Your task to perform on an android device: toggle wifi Image 0: 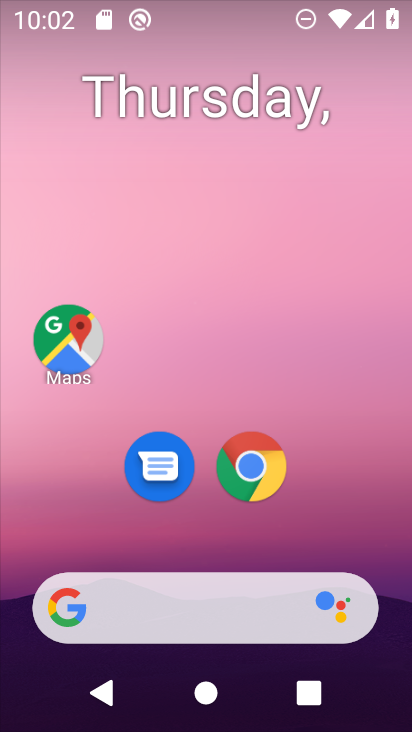
Step 0: drag from (320, 604) to (253, 81)
Your task to perform on an android device: toggle wifi Image 1: 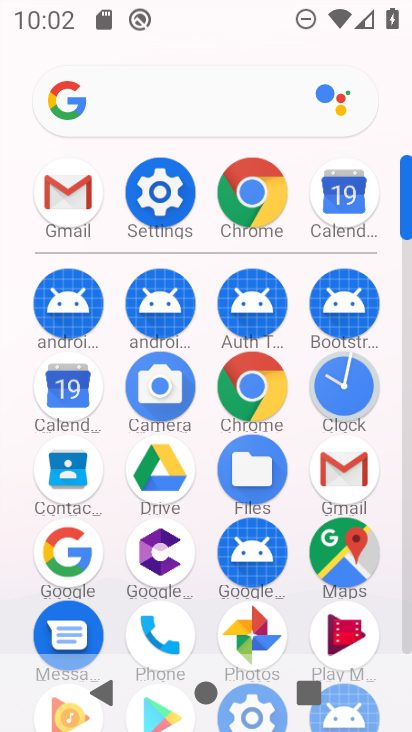
Step 1: click (150, 192)
Your task to perform on an android device: toggle wifi Image 2: 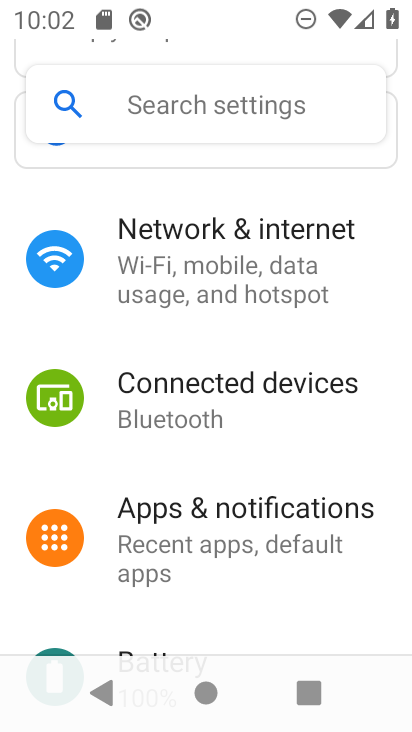
Step 2: click (270, 267)
Your task to perform on an android device: toggle wifi Image 3: 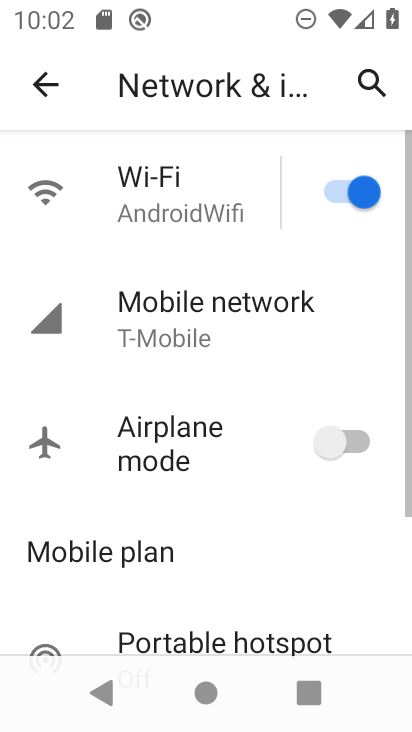
Step 3: click (327, 196)
Your task to perform on an android device: toggle wifi Image 4: 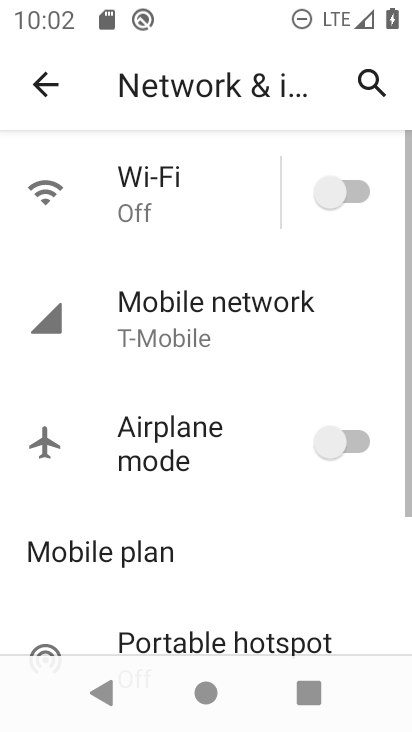
Step 4: task complete